Your task to perform on an android device: change text size in settings app Image 0: 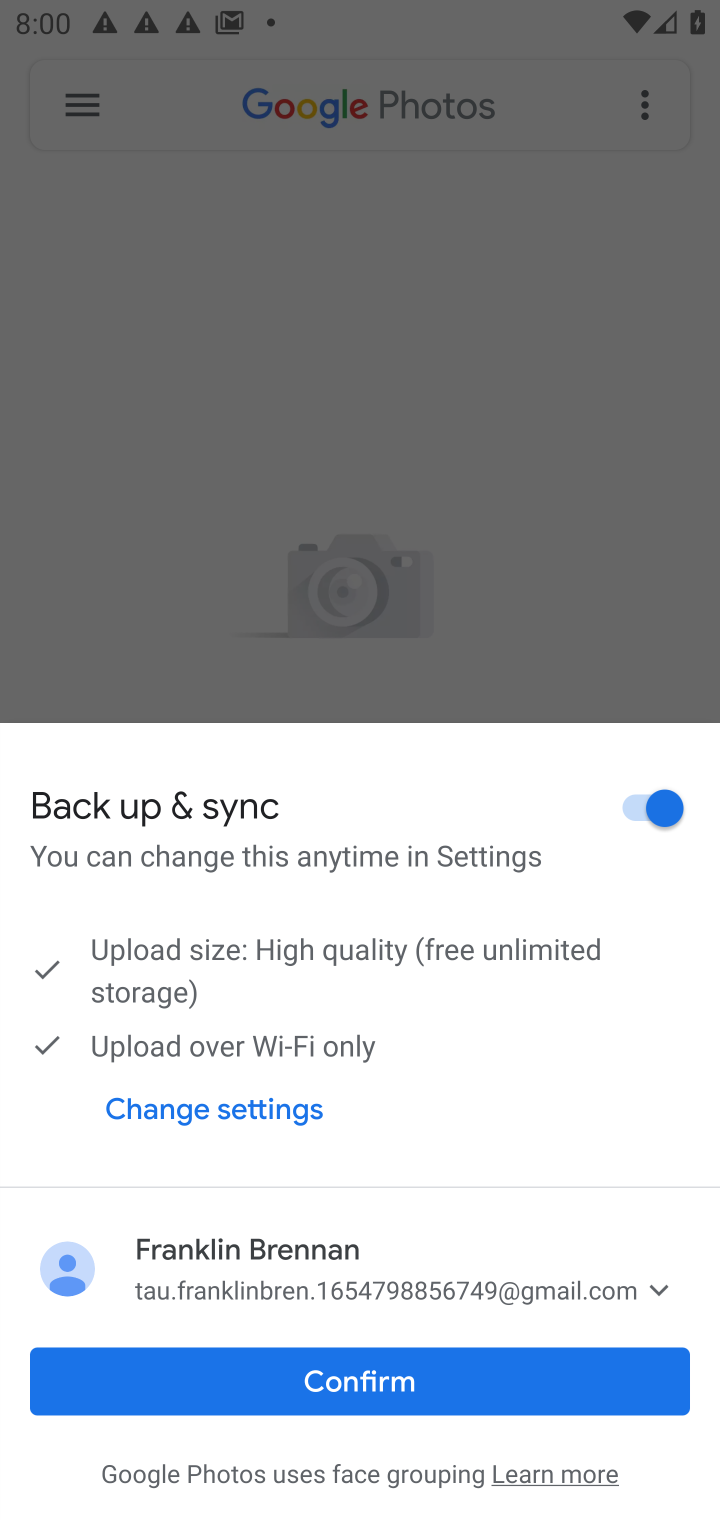
Step 0: press home button
Your task to perform on an android device: change text size in settings app Image 1: 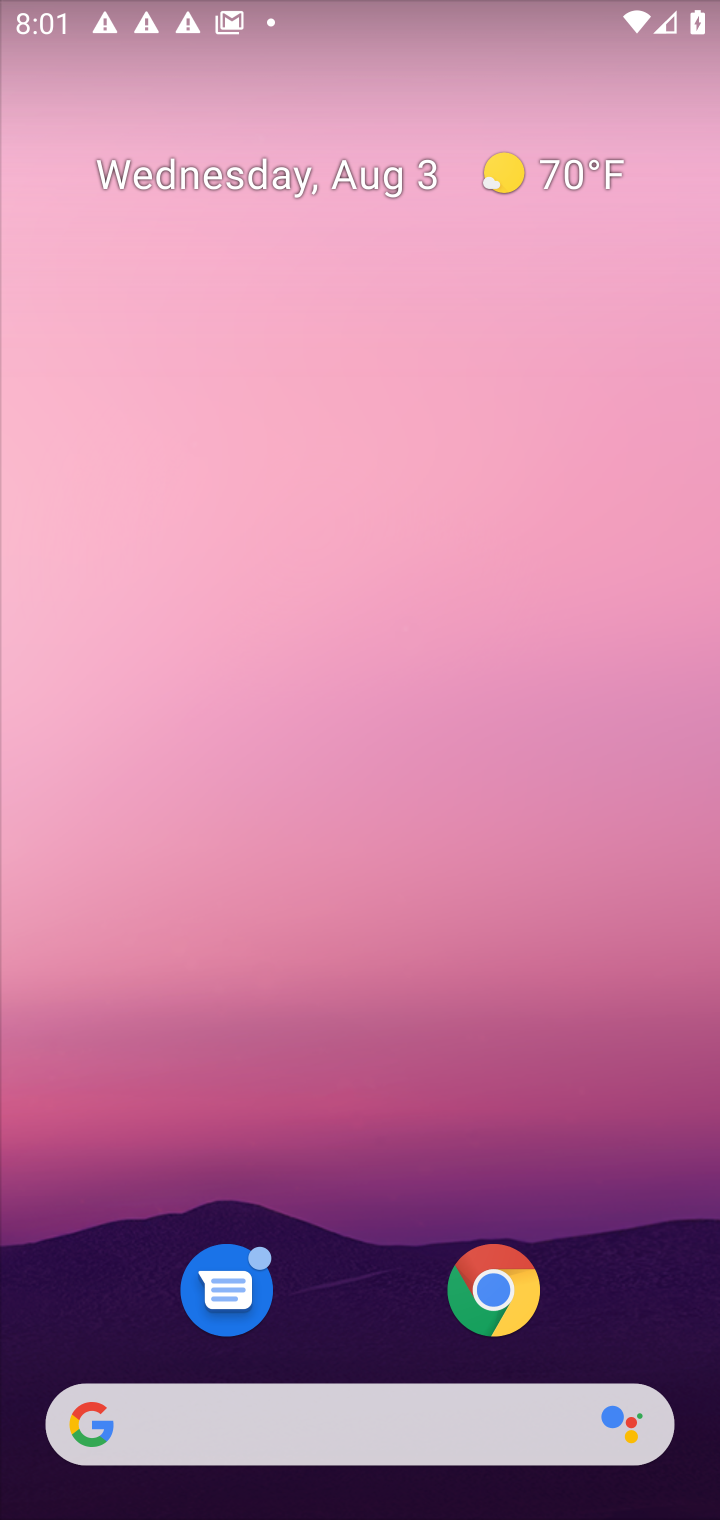
Step 1: drag from (389, 950) to (423, 302)
Your task to perform on an android device: change text size in settings app Image 2: 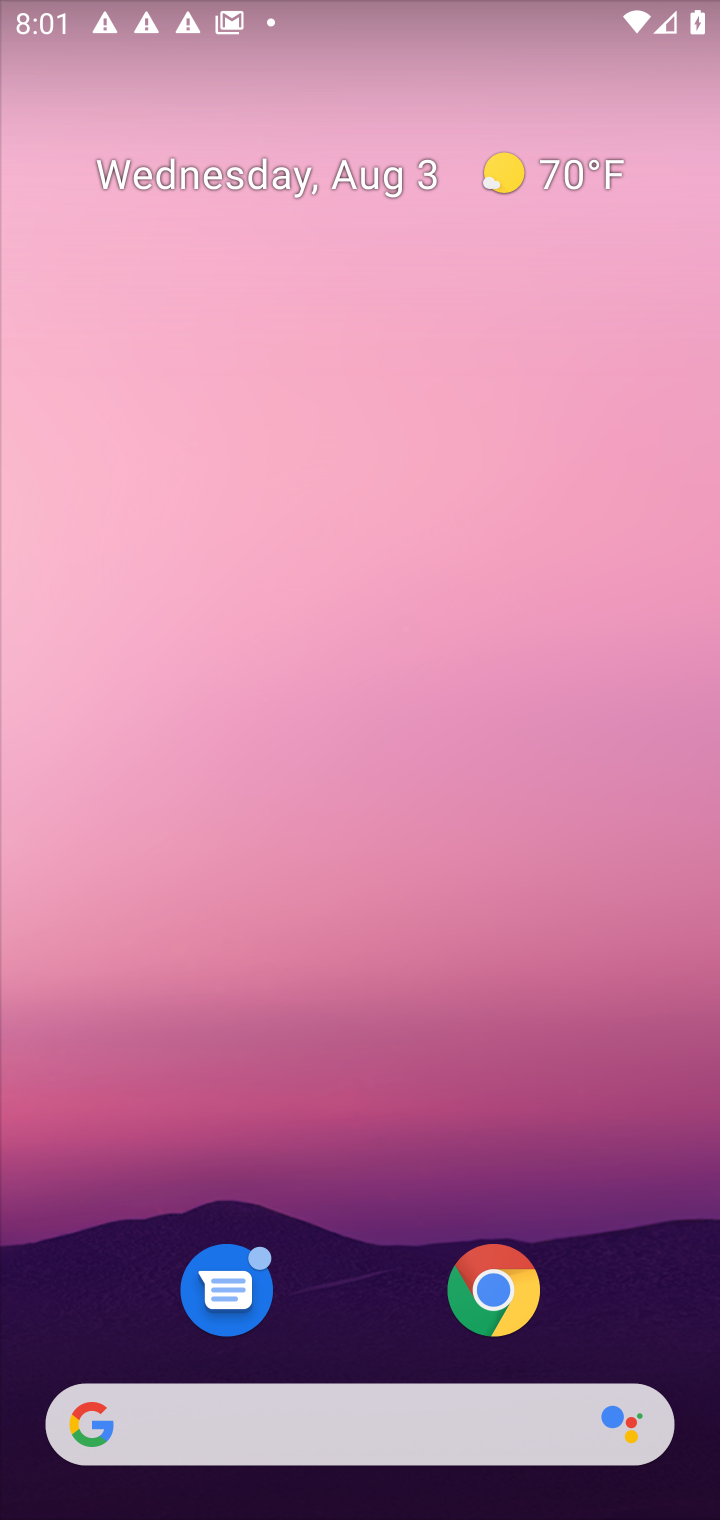
Step 2: drag from (349, 1345) to (404, 157)
Your task to perform on an android device: change text size in settings app Image 3: 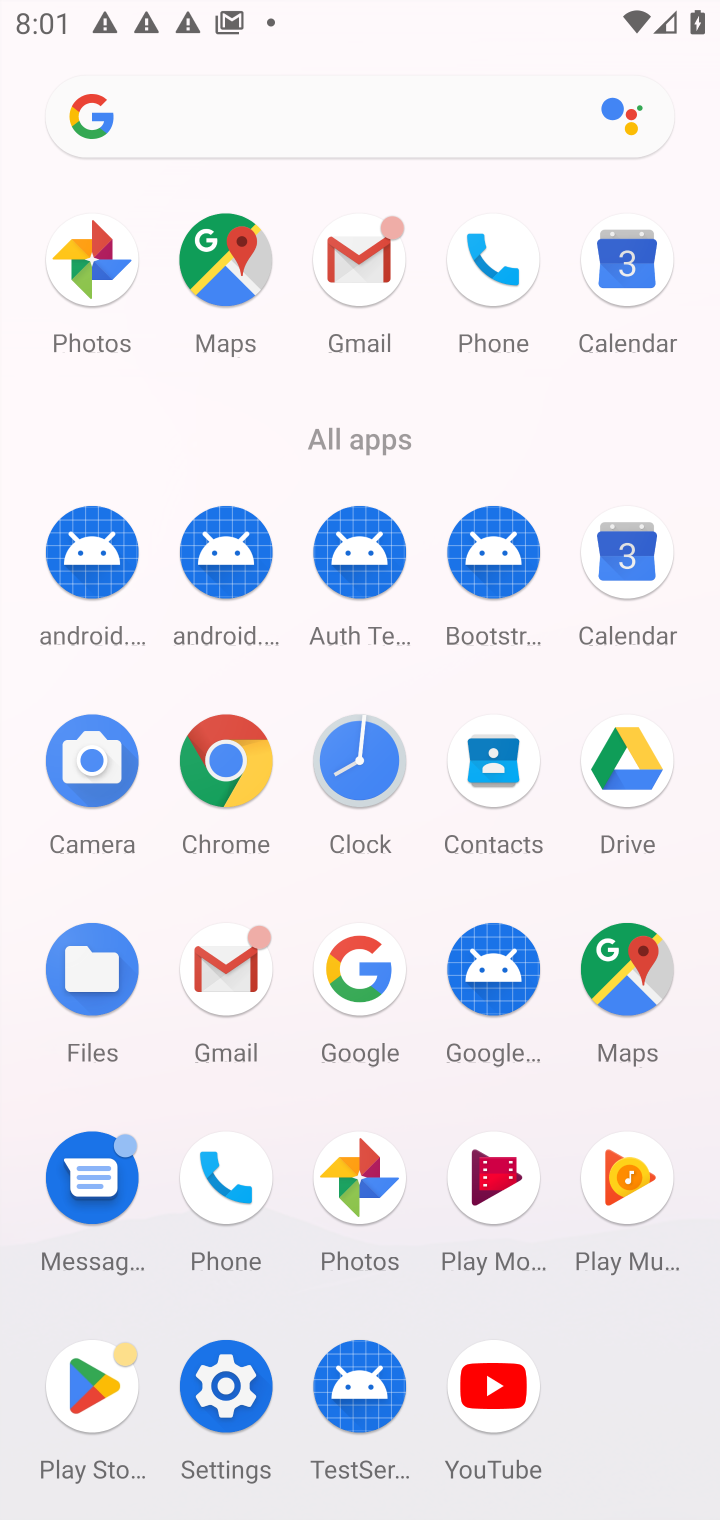
Step 3: click (217, 1397)
Your task to perform on an android device: change text size in settings app Image 4: 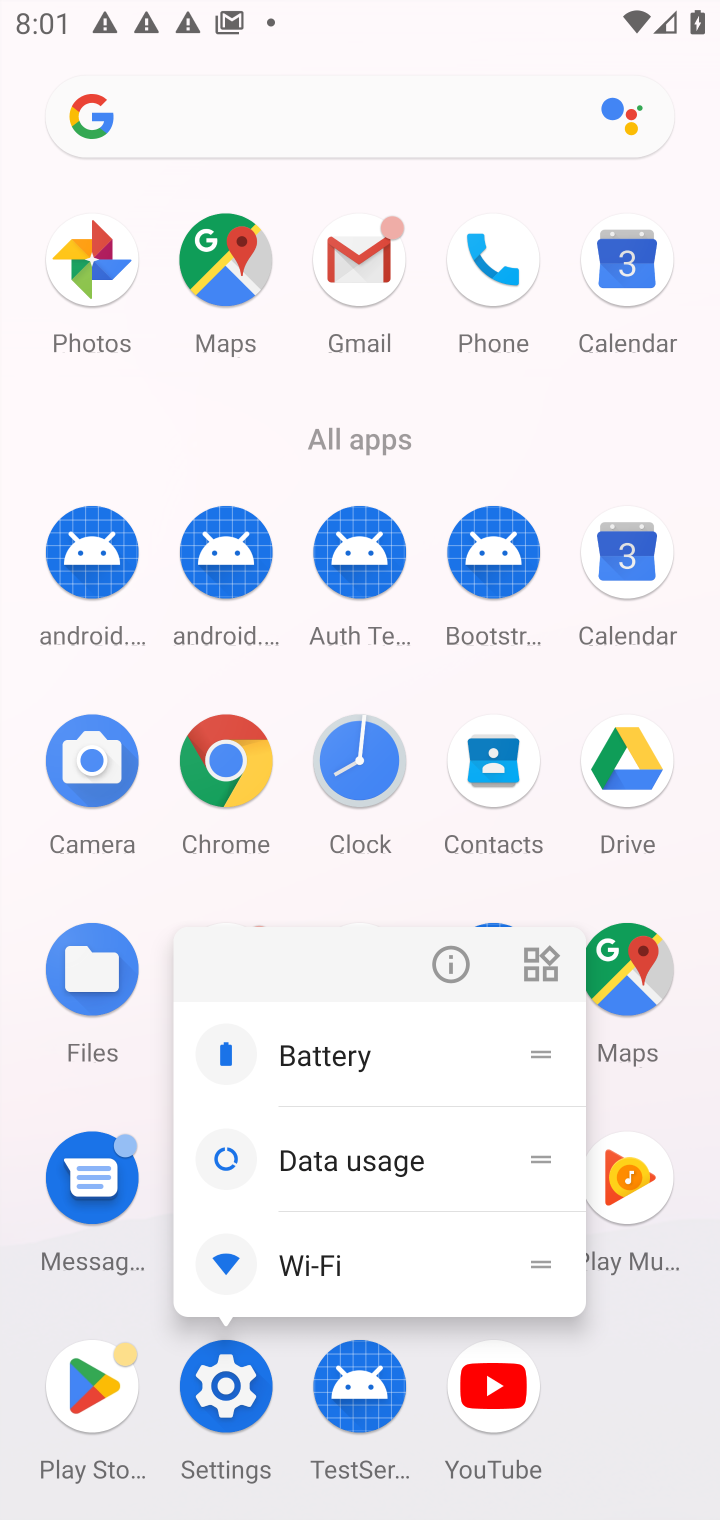
Step 4: click (237, 1396)
Your task to perform on an android device: change text size in settings app Image 5: 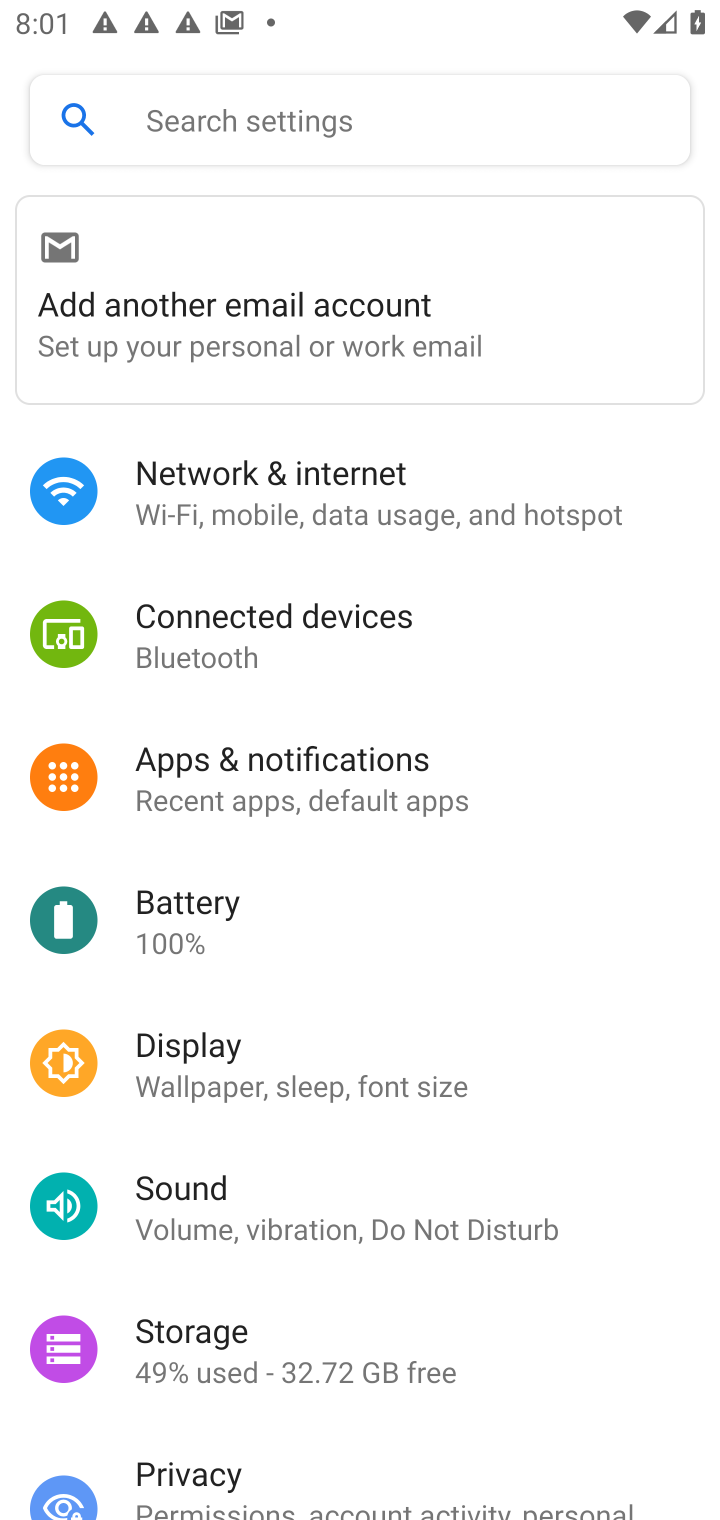
Step 5: click (275, 1075)
Your task to perform on an android device: change text size in settings app Image 6: 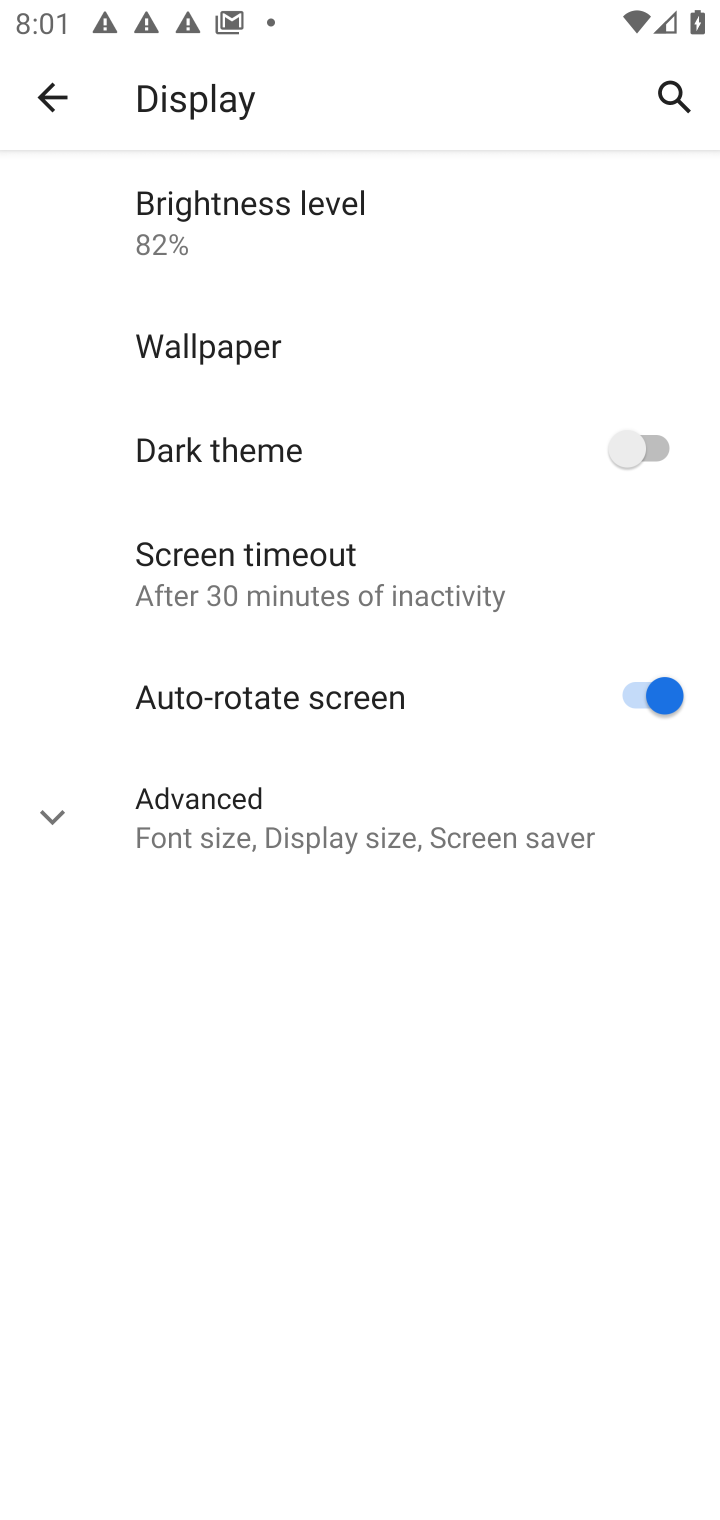
Step 6: click (84, 810)
Your task to perform on an android device: change text size in settings app Image 7: 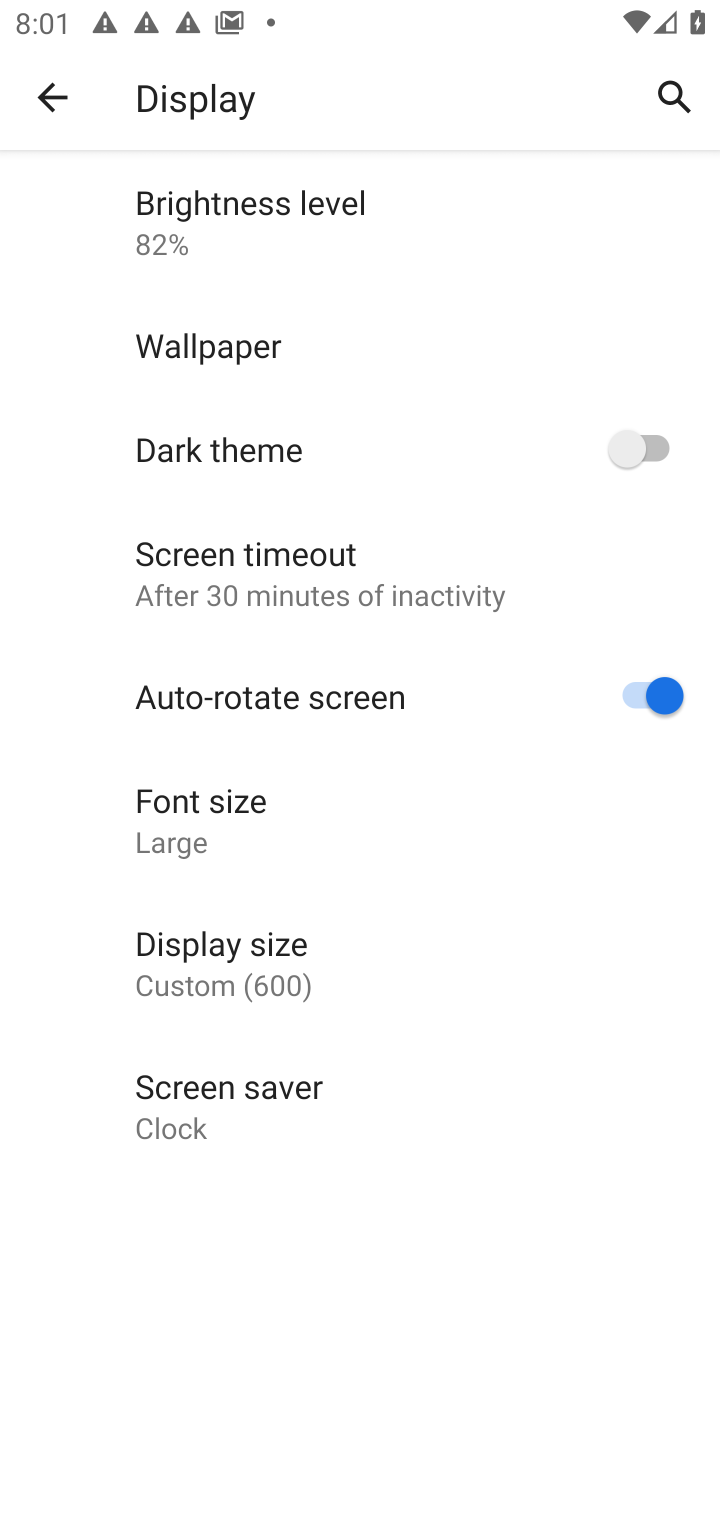
Step 7: click (244, 839)
Your task to perform on an android device: change text size in settings app Image 8: 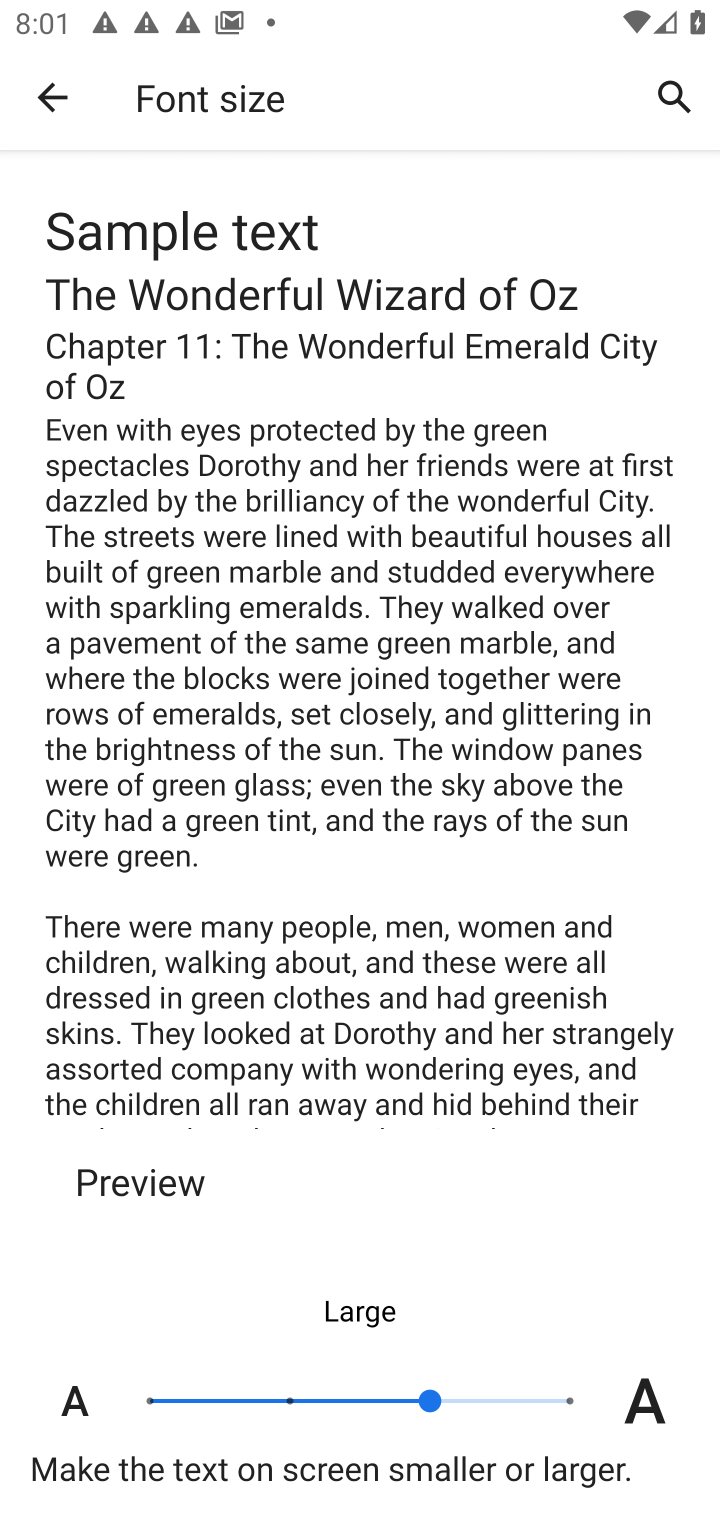
Step 8: click (287, 1392)
Your task to perform on an android device: change text size in settings app Image 9: 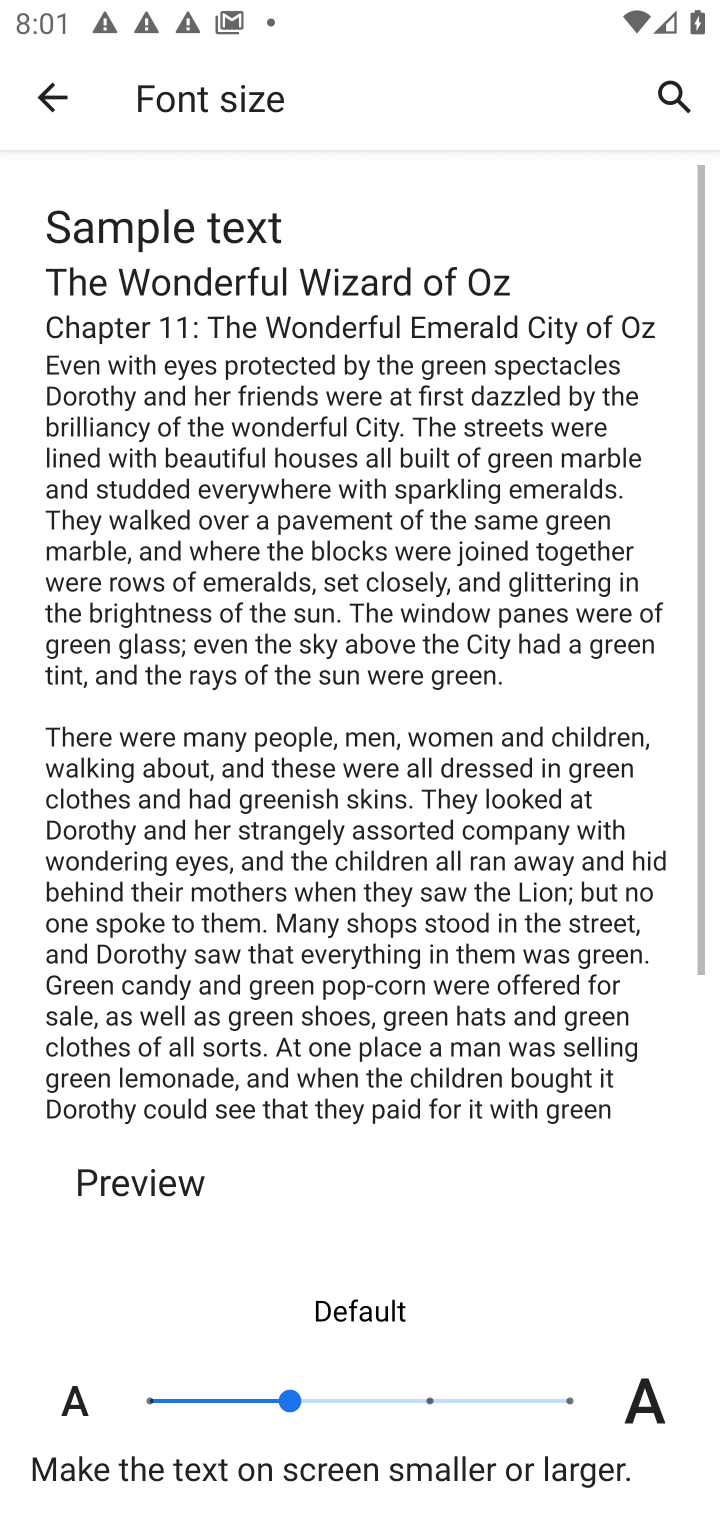
Step 9: click (558, 1403)
Your task to perform on an android device: change text size in settings app Image 10: 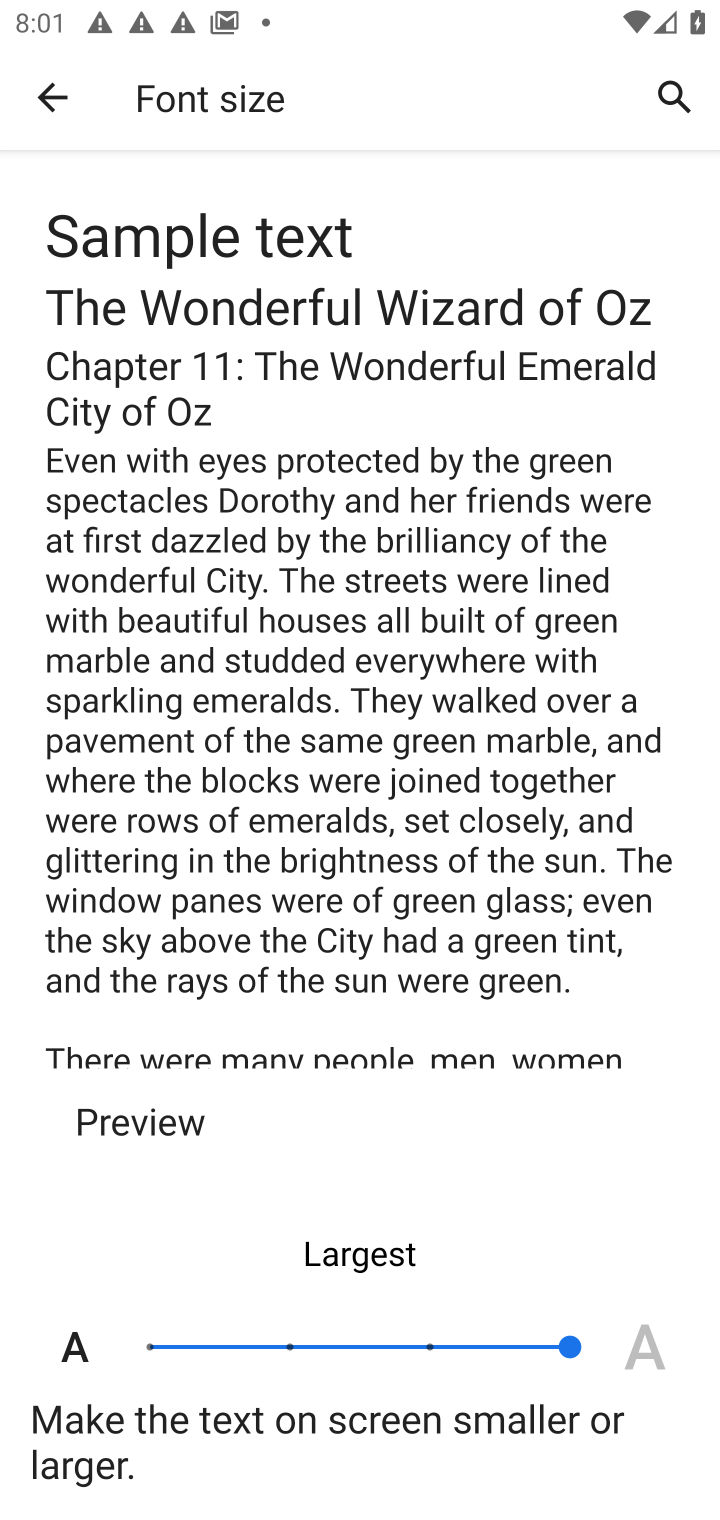
Step 10: task complete